Your task to perform on an android device: turn off location history Image 0: 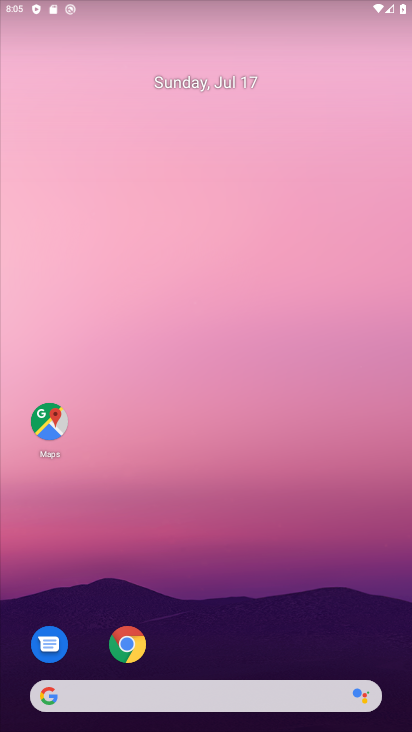
Step 0: press back button
Your task to perform on an android device: turn off location history Image 1: 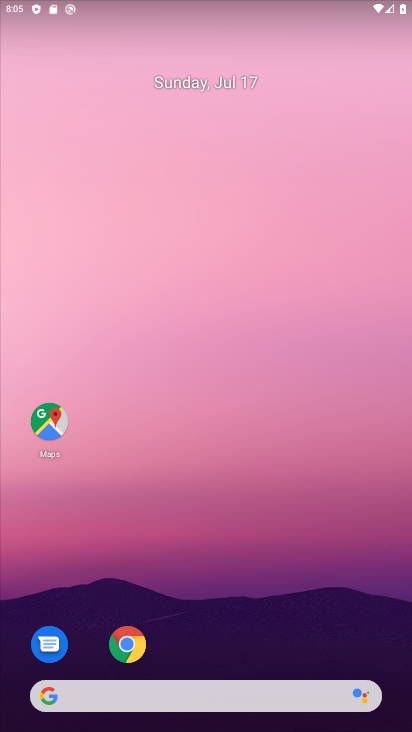
Step 1: drag from (206, 397) to (180, 145)
Your task to perform on an android device: turn off location history Image 2: 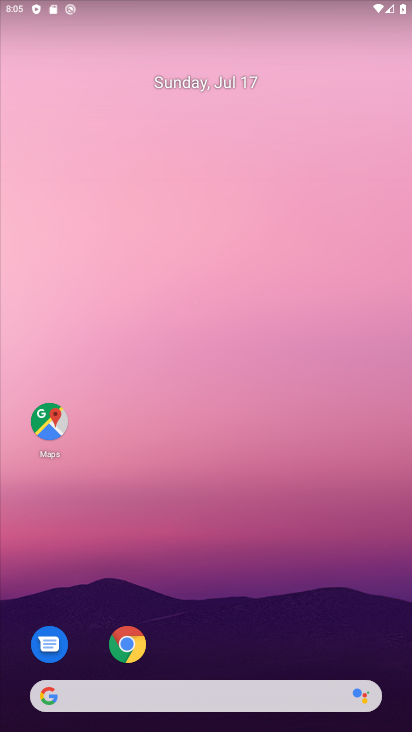
Step 2: drag from (249, 312) to (218, 154)
Your task to perform on an android device: turn off location history Image 3: 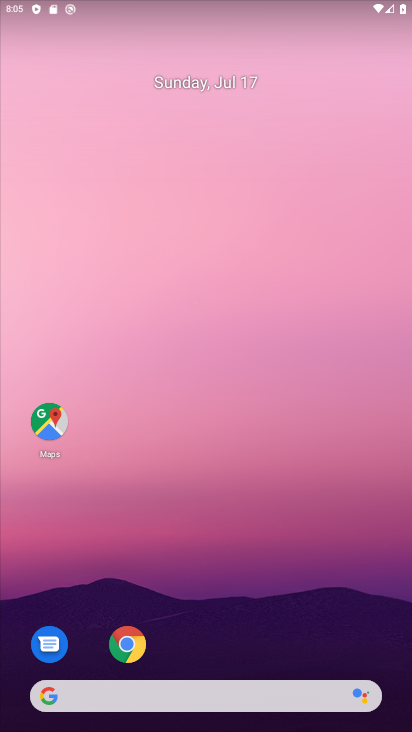
Step 3: drag from (197, 608) to (186, 231)
Your task to perform on an android device: turn off location history Image 4: 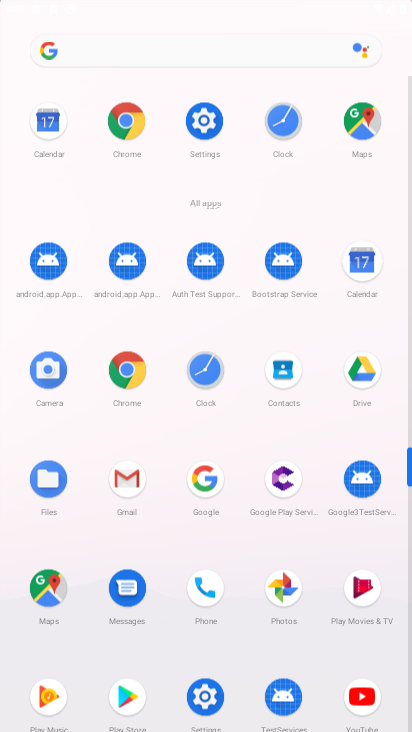
Step 4: drag from (174, 415) to (217, 68)
Your task to perform on an android device: turn off location history Image 5: 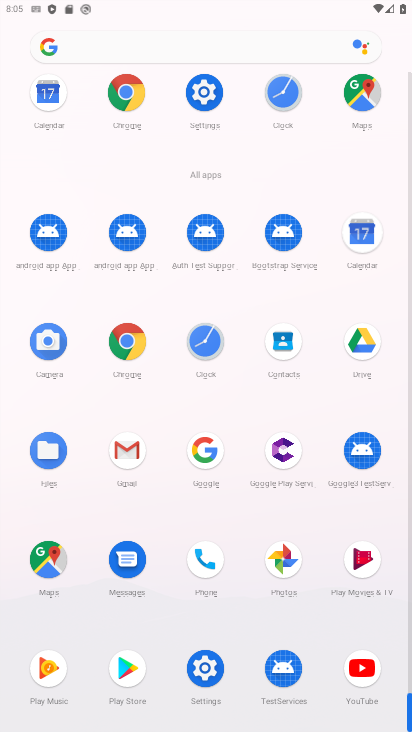
Step 5: click (39, 561)
Your task to perform on an android device: turn off location history Image 6: 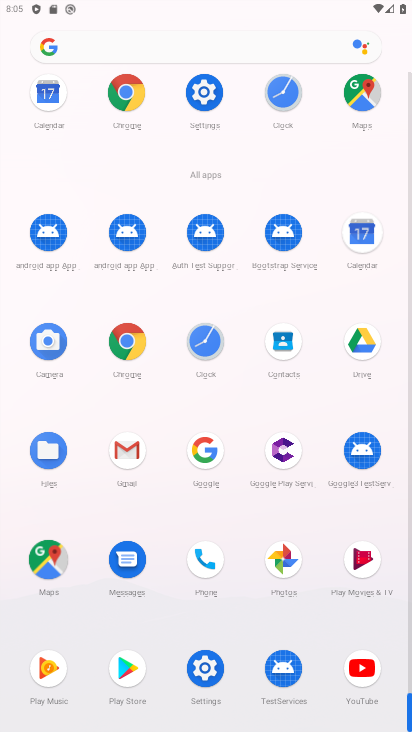
Step 6: click (44, 563)
Your task to perform on an android device: turn off location history Image 7: 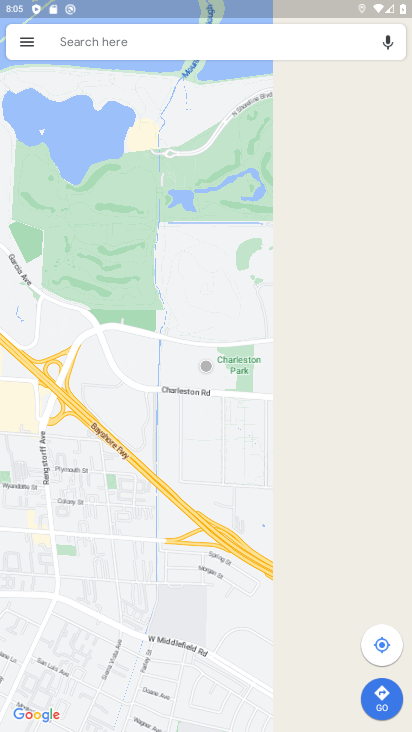
Step 7: drag from (21, 45) to (58, 237)
Your task to perform on an android device: turn off location history Image 8: 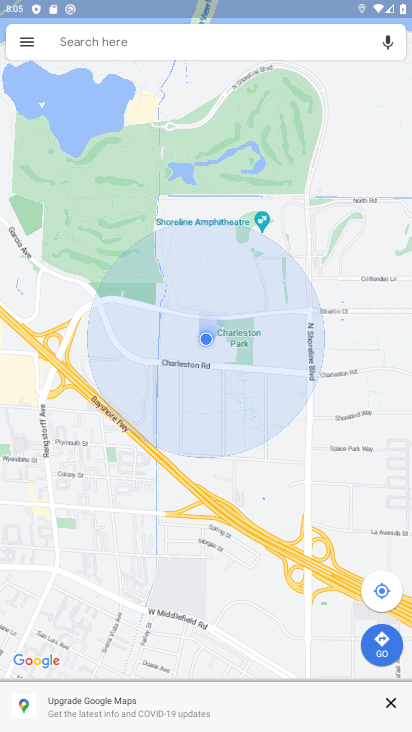
Step 8: drag from (35, 33) to (42, 156)
Your task to perform on an android device: turn off location history Image 9: 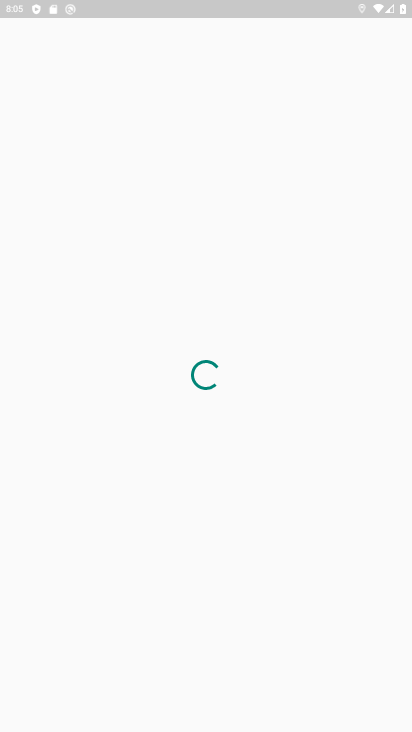
Step 9: click (22, 50)
Your task to perform on an android device: turn off location history Image 10: 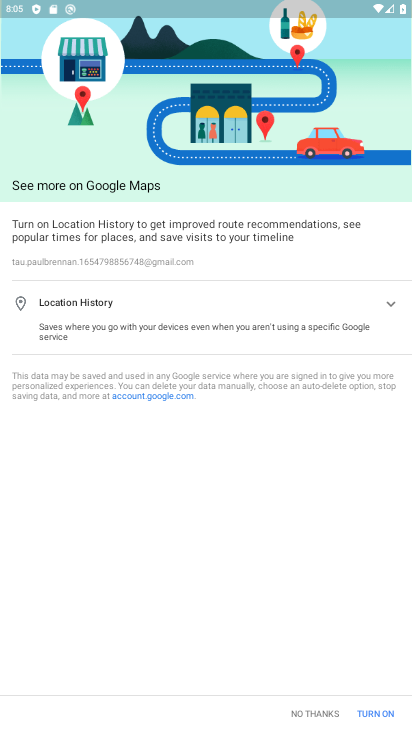
Step 10: click (396, 298)
Your task to perform on an android device: turn off location history Image 11: 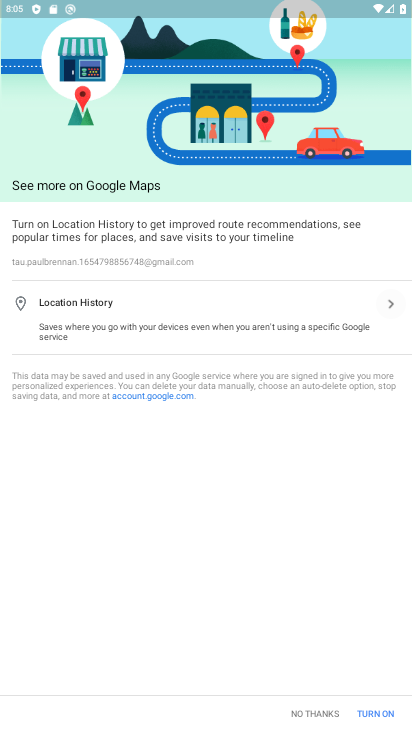
Step 11: click (391, 304)
Your task to perform on an android device: turn off location history Image 12: 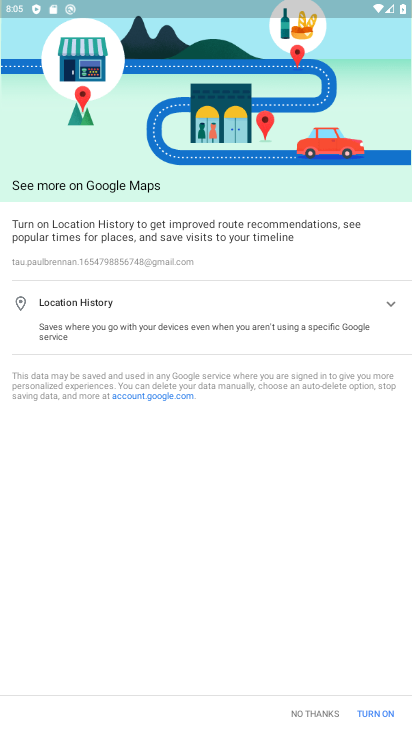
Step 12: click (391, 300)
Your task to perform on an android device: turn off location history Image 13: 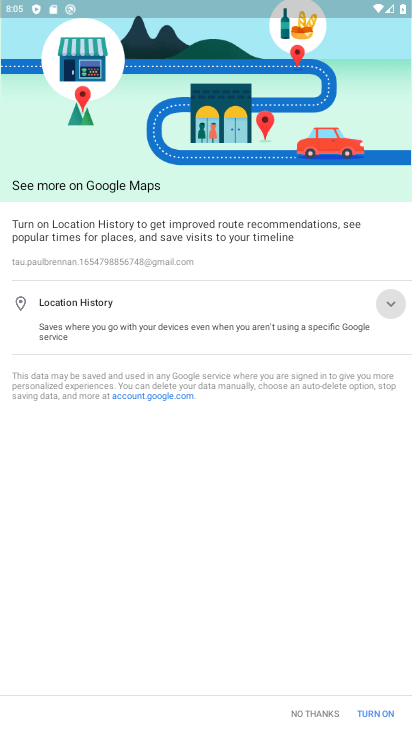
Step 13: click (392, 300)
Your task to perform on an android device: turn off location history Image 14: 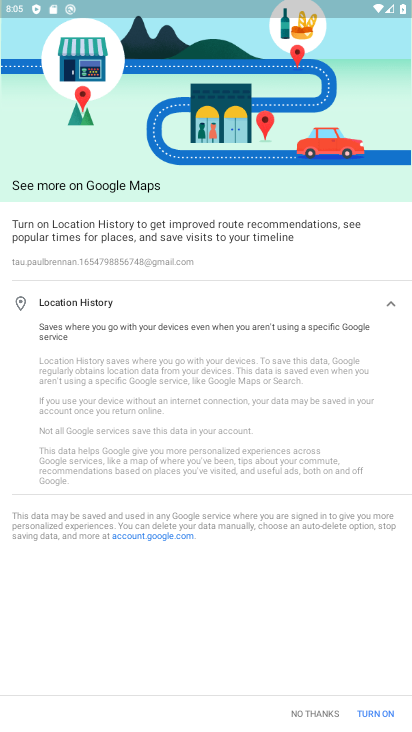
Step 14: click (394, 301)
Your task to perform on an android device: turn off location history Image 15: 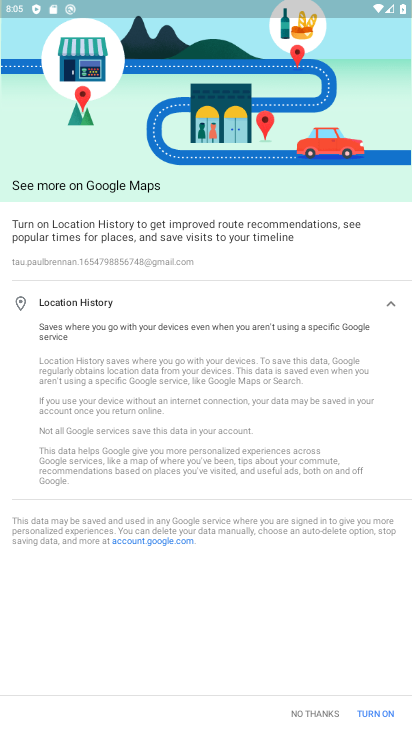
Step 15: click (319, 717)
Your task to perform on an android device: turn off location history Image 16: 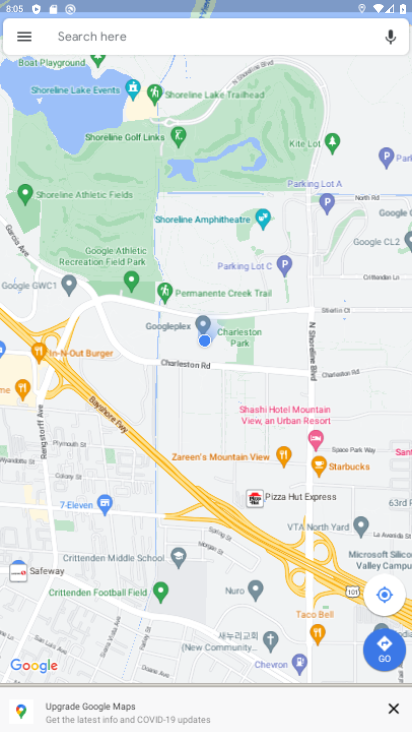
Step 16: task complete